Your task to perform on an android device: Toggle the flashlight Image 0: 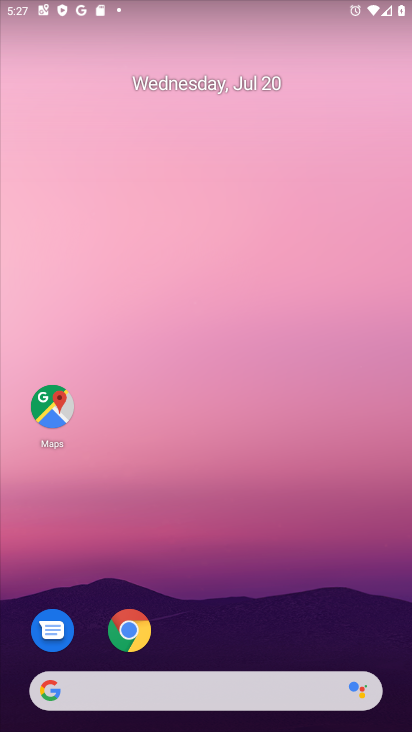
Step 0: drag from (275, 620) to (223, 26)
Your task to perform on an android device: Toggle the flashlight Image 1: 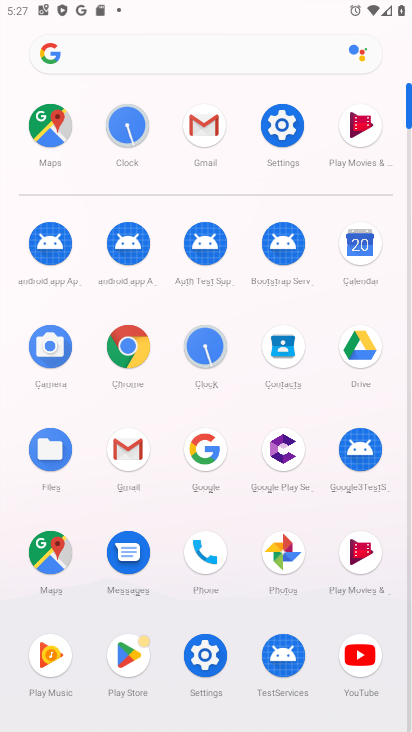
Step 1: click (283, 123)
Your task to perform on an android device: Toggle the flashlight Image 2: 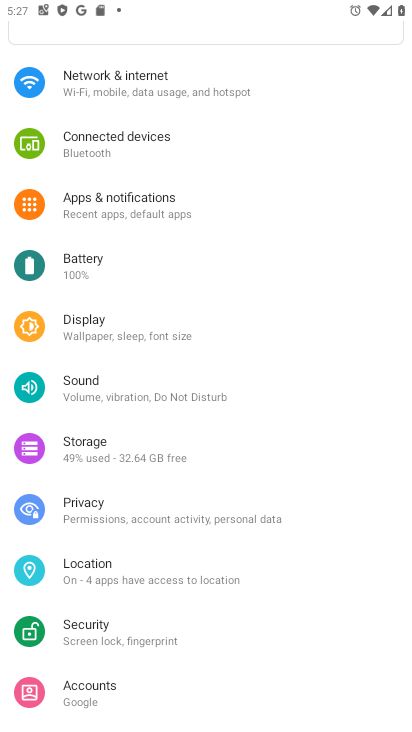
Step 2: click (97, 326)
Your task to perform on an android device: Toggle the flashlight Image 3: 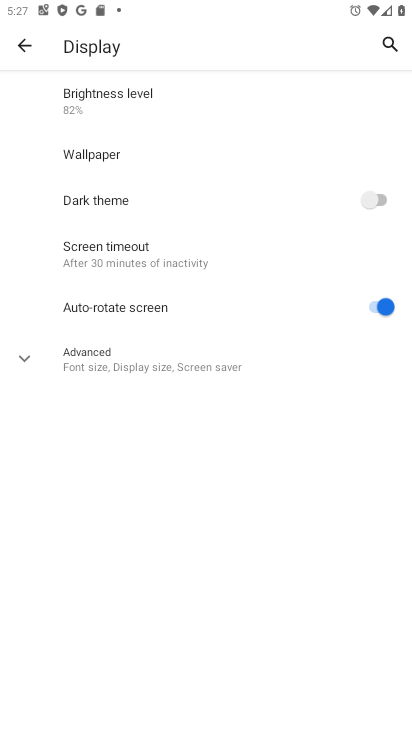
Step 3: click (81, 357)
Your task to perform on an android device: Toggle the flashlight Image 4: 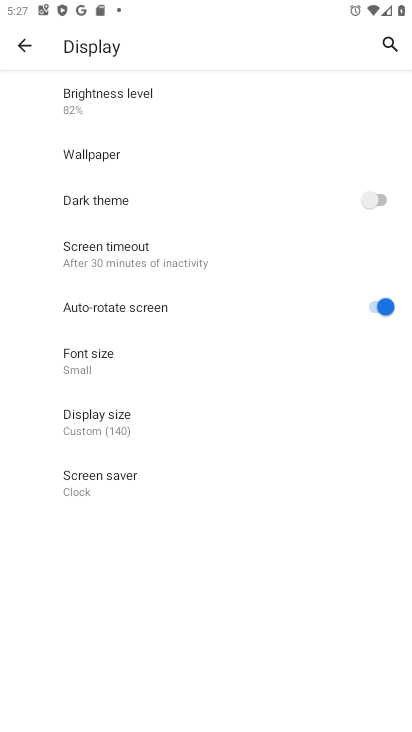
Step 4: click (102, 467)
Your task to perform on an android device: Toggle the flashlight Image 5: 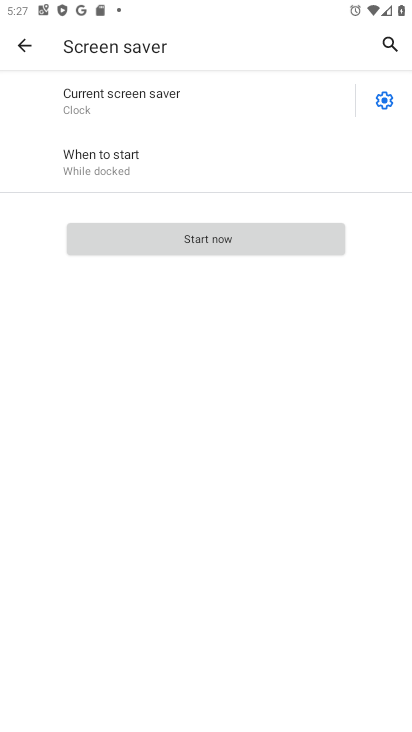
Step 5: task complete